Your task to perform on an android device: Go to display settings Image 0: 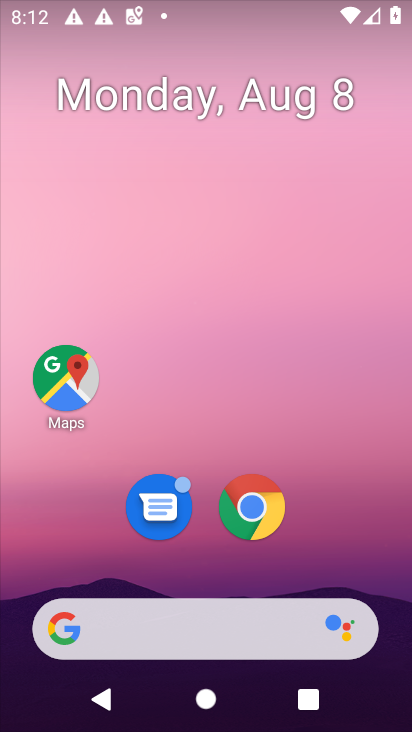
Step 0: drag from (234, 562) to (185, 0)
Your task to perform on an android device: Go to display settings Image 1: 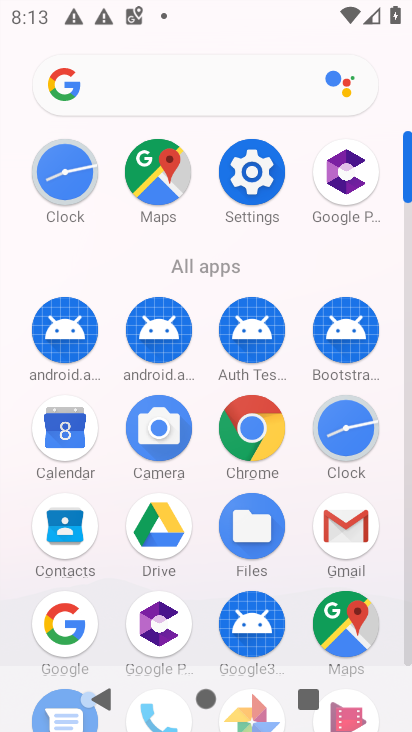
Step 1: click (246, 154)
Your task to perform on an android device: Go to display settings Image 2: 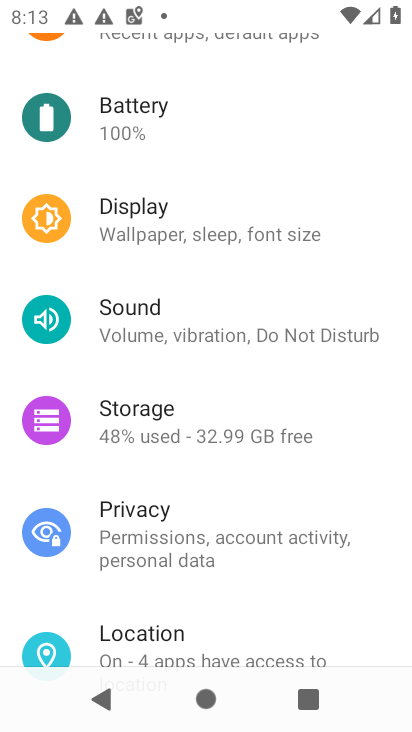
Step 2: drag from (135, 225) to (190, 225)
Your task to perform on an android device: Go to display settings Image 3: 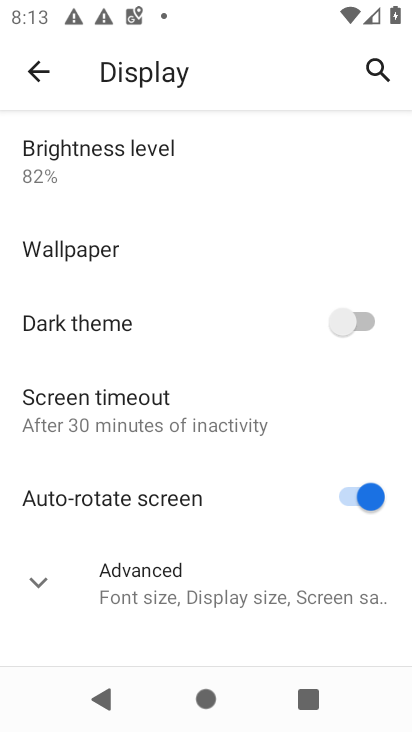
Step 3: click (206, 562)
Your task to perform on an android device: Go to display settings Image 4: 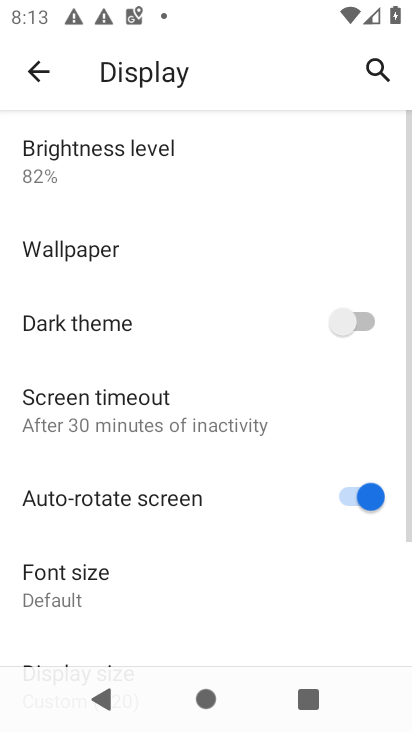
Step 4: task complete